Your task to perform on an android device: Open eBay Image 0: 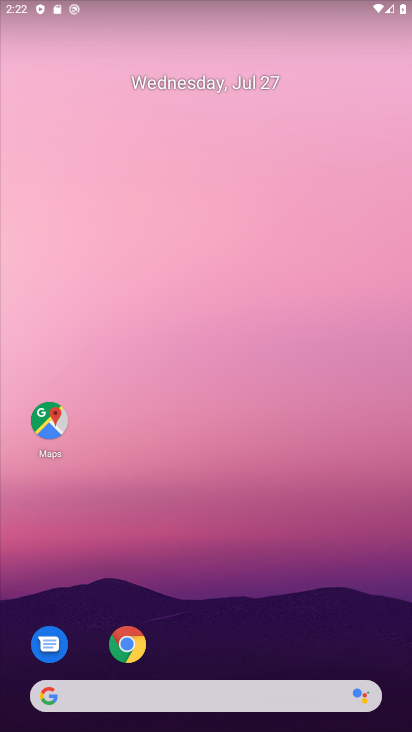
Step 0: click (137, 647)
Your task to perform on an android device: Open eBay Image 1: 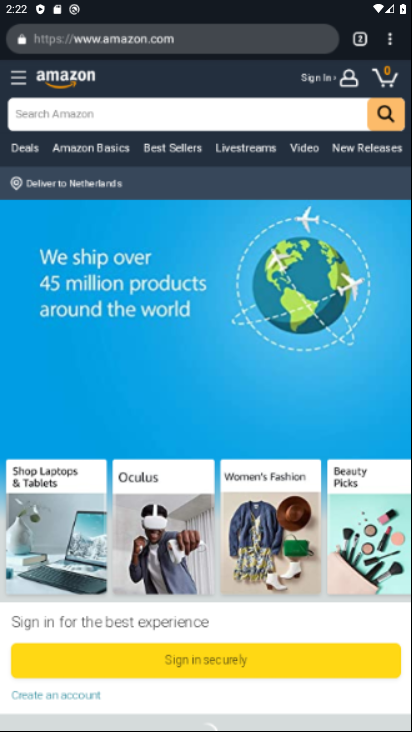
Step 1: click (144, 41)
Your task to perform on an android device: Open eBay Image 2: 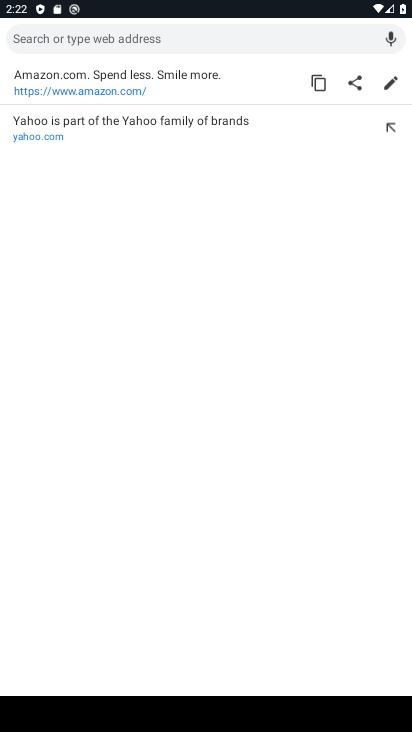
Step 2: type "eBay"
Your task to perform on an android device: Open eBay Image 3: 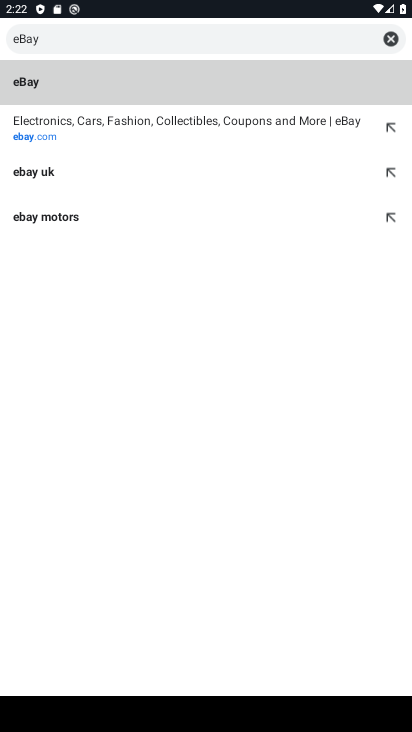
Step 3: click (82, 136)
Your task to perform on an android device: Open eBay Image 4: 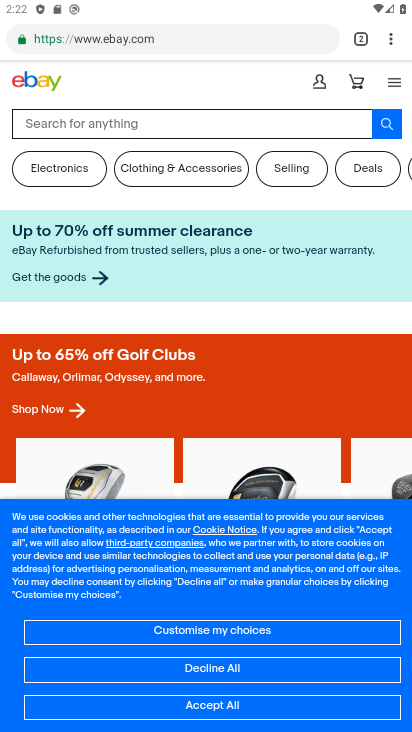
Step 4: task complete